Your task to perform on an android device: Go to Amazon Image 0: 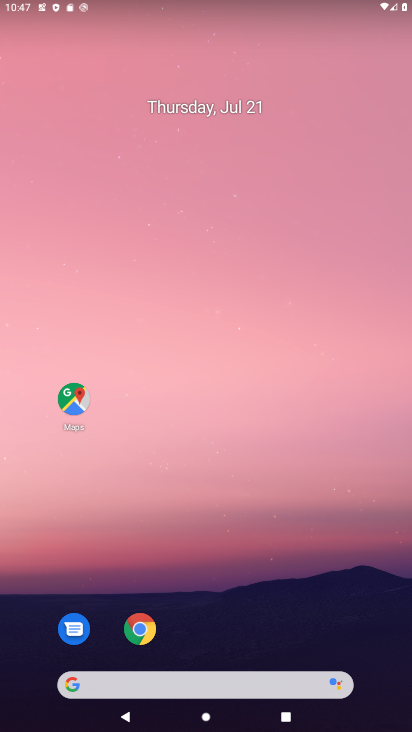
Step 0: click (143, 626)
Your task to perform on an android device: Go to Amazon Image 1: 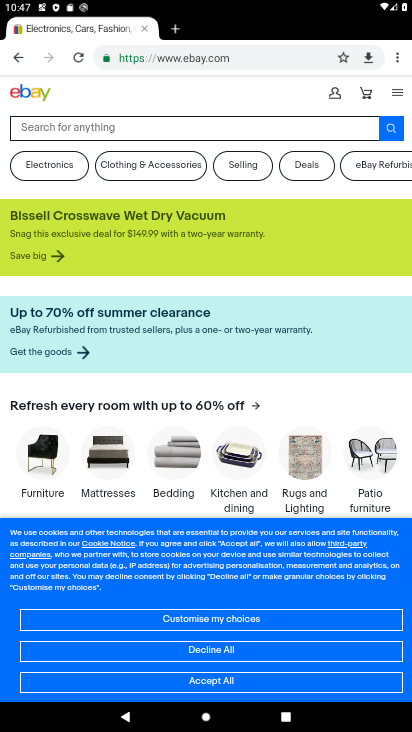
Step 1: click (405, 67)
Your task to perform on an android device: Go to Amazon Image 2: 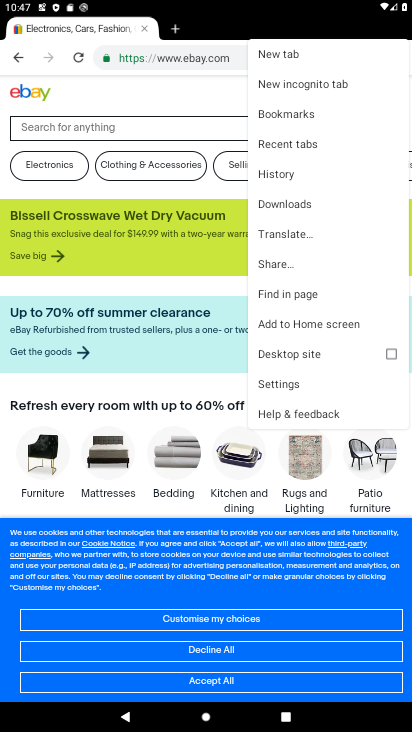
Step 2: click (268, 49)
Your task to perform on an android device: Go to Amazon Image 3: 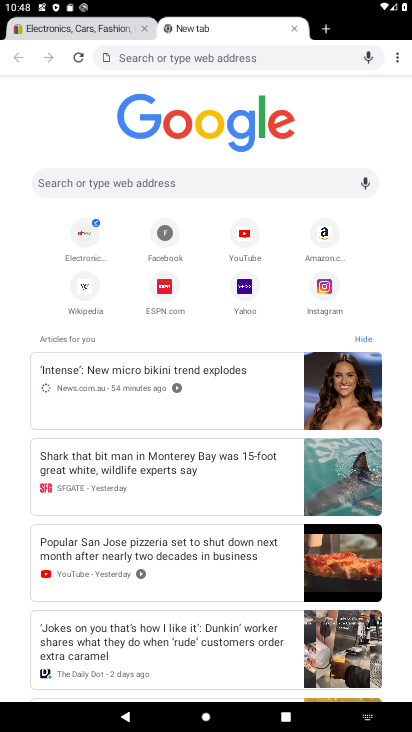
Step 3: click (331, 228)
Your task to perform on an android device: Go to Amazon Image 4: 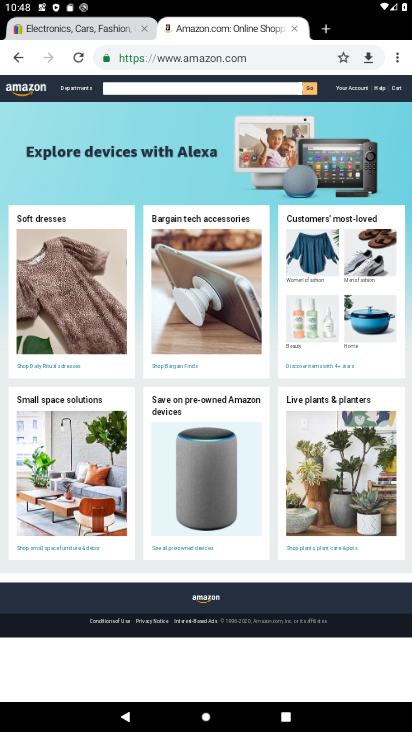
Step 4: task complete